Your task to perform on an android device: open wifi settings Image 0: 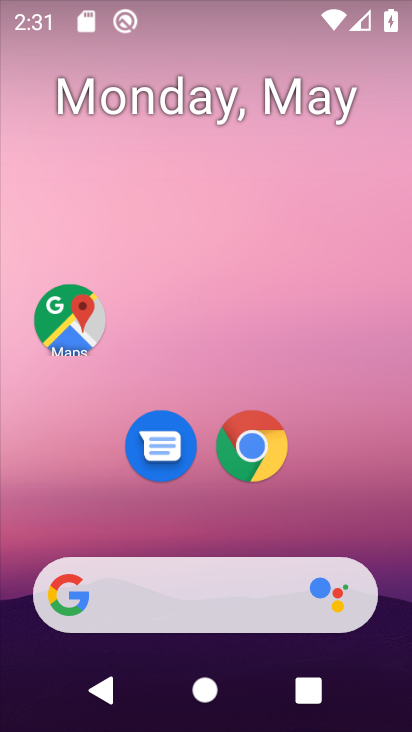
Step 0: drag from (138, 536) to (237, 149)
Your task to perform on an android device: open wifi settings Image 1: 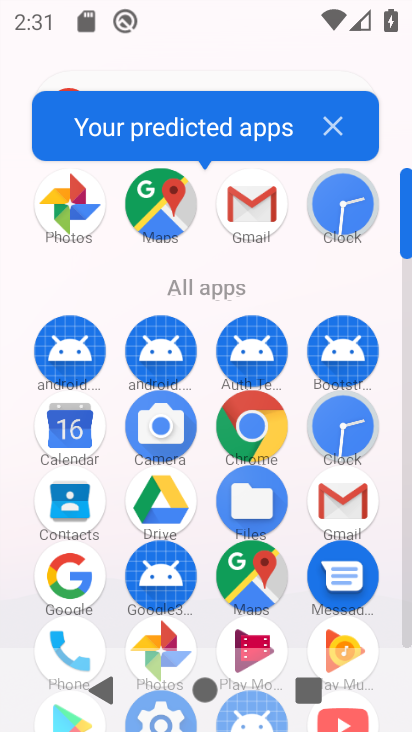
Step 1: drag from (222, 539) to (284, 353)
Your task to perform on an android device: open wifi settings Image 2: 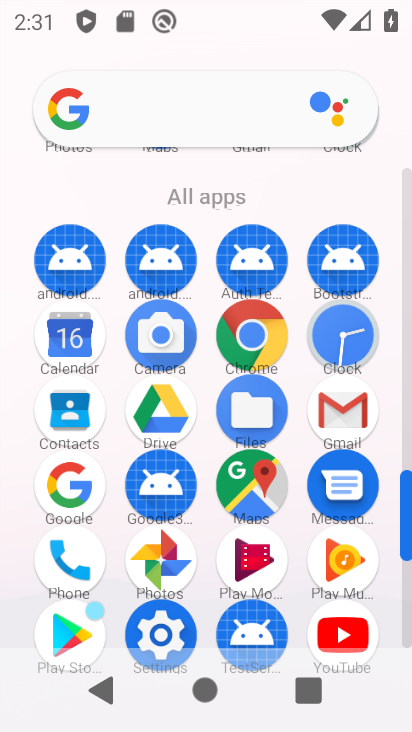
Step 2: click (181, 634)
Your task to perform on an android device: open wifi settings Image 3: 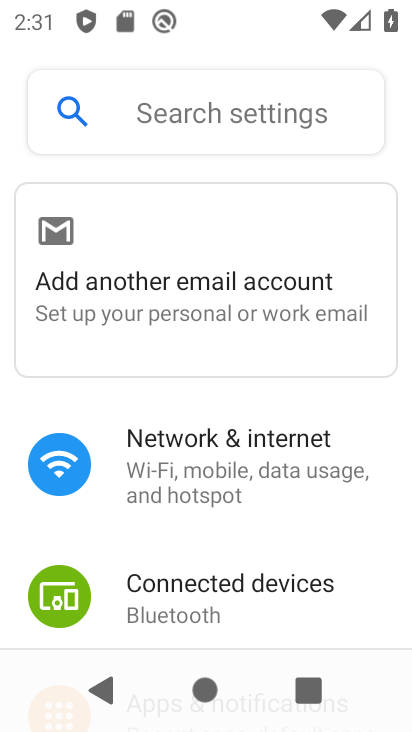
Step 3: click (224, 471)
Your task to perform on an android device: open wifi settings Image 4: 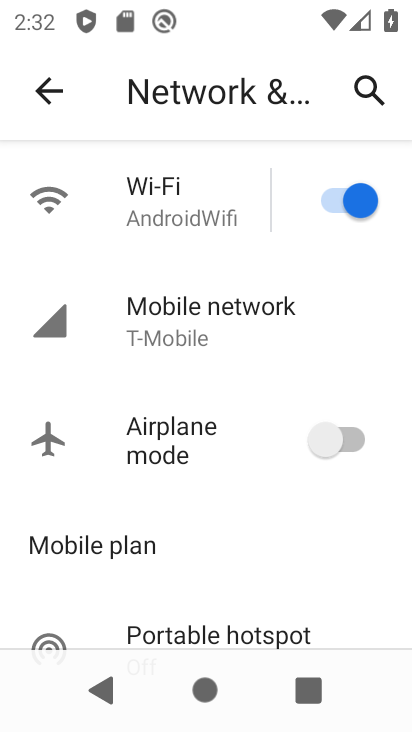
Step 4: click (161, 246)
Your task to perform on an android device: open wifi settings Image 5: 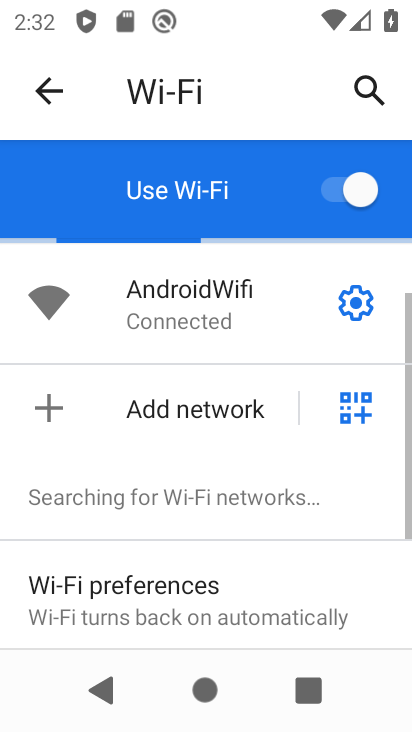
Step 5: task complete